Your task to perform on an android device: Open display settings Image 0: 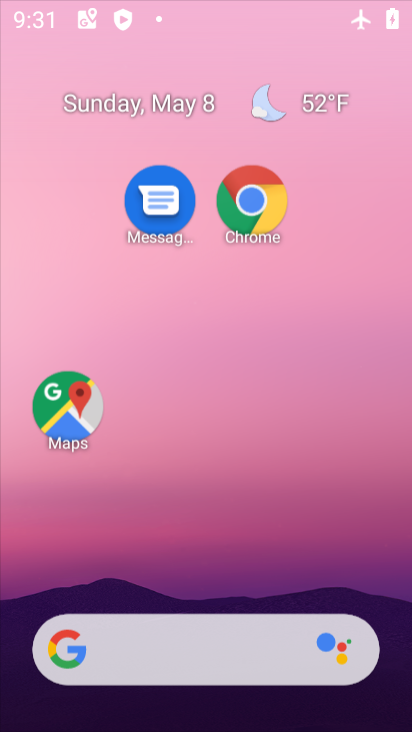
Step 0: drag from (171, 9) to (340, 580)
Your task to perform on an android device: Open display settings Image 1: 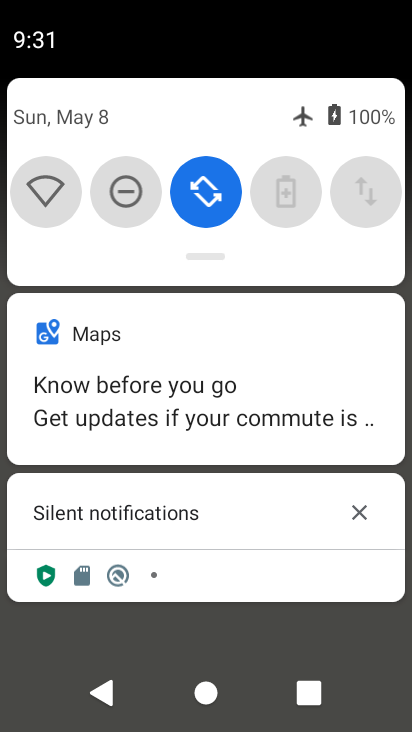
Step 1: press home button
Your task to perform on an android device: Open display settings Image 2: 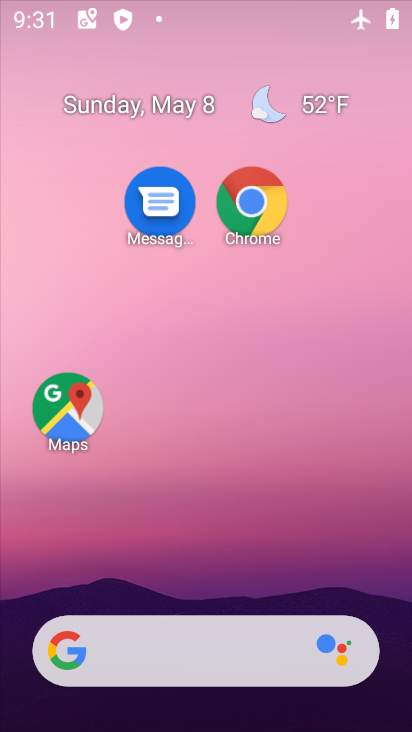
Step 2: drag from (200, 616) to (167, 15)
Your task to perform on an android device: Open display settings Image 3: 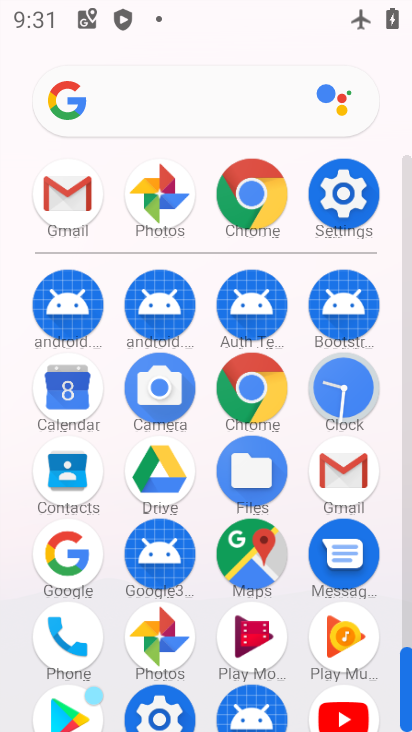
Step 3: click (348, 193)
Your task to perform on an android device: Open display settings Image 4: 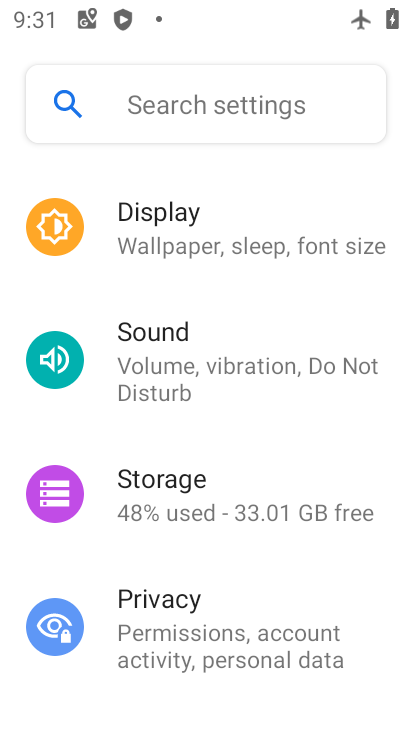
Step 4: click (168, 239)
Your task to perform on an android device: Open display settings Image 5: 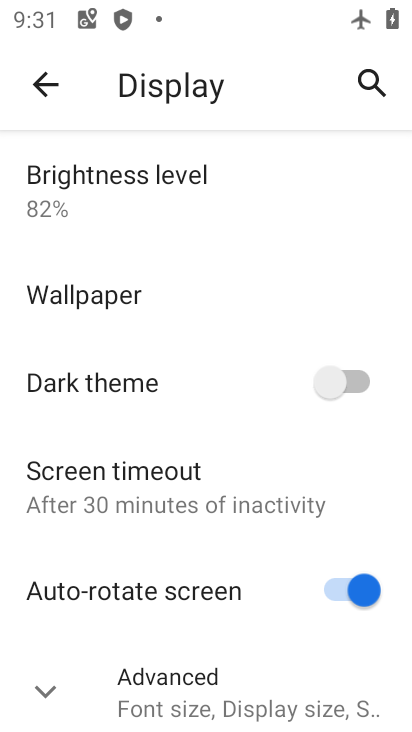
Step 5: click (186, 686)
Your task to perform on an android device: Open display settings Image 6: 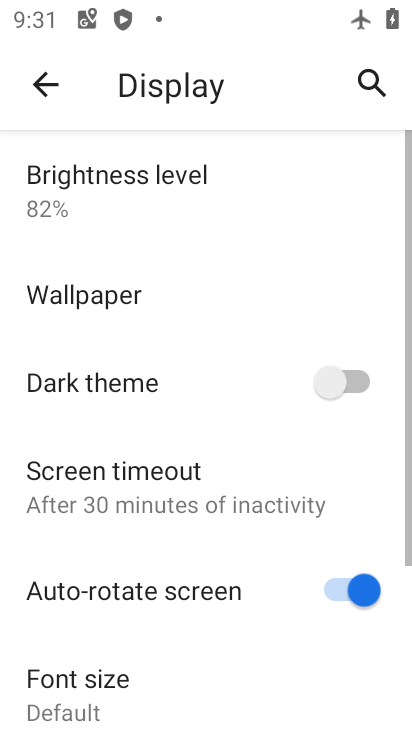
Step 6: task complete